Your task to perform on an android device: Open my contact list Image 0: 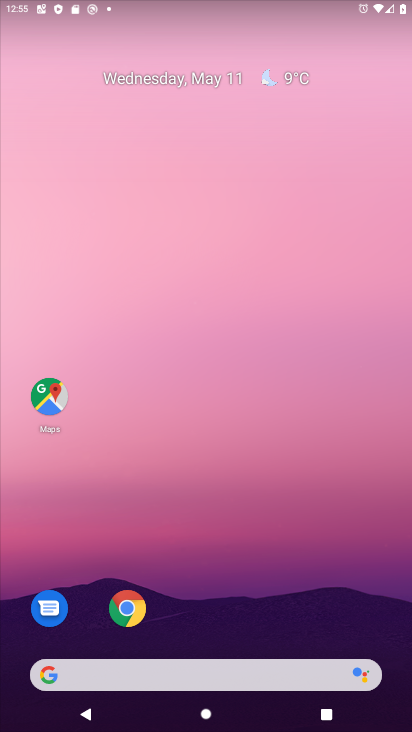
Step 0: drag from (265, 543) to (266, 288)
Your task to perform on an android device: Open my contact list Image 1: 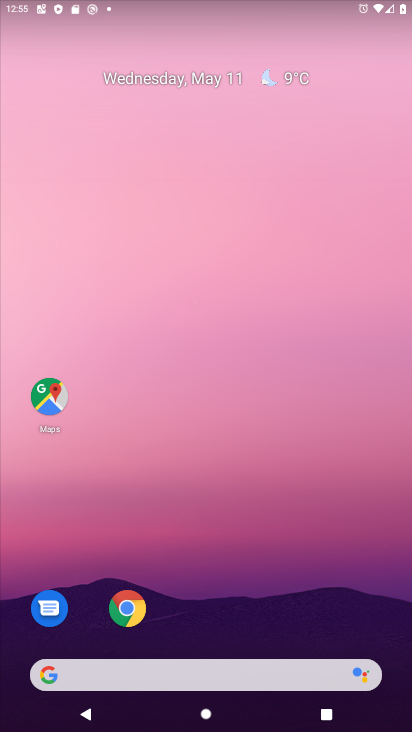
Step 1: drag from (171, 605) to (183, 193)
Your task to perform on an android device: Open my contact list Image 2: 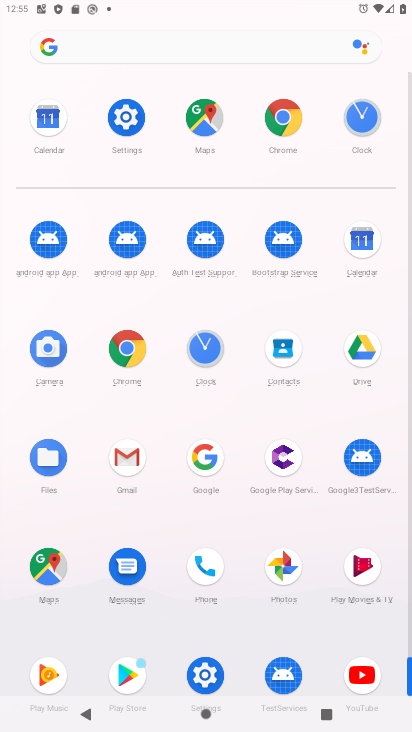
Step 2: click (275, 350)
Your task to perform on an android device: Open my contact list Image 3: 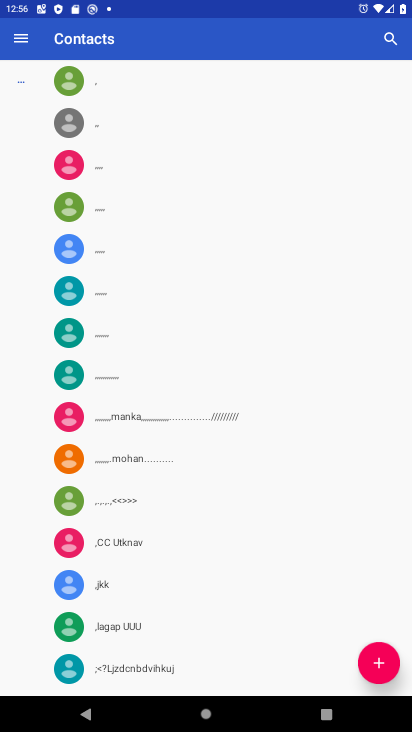
Step 3: task complete